Your task to perform on an android device: Search for seafood restaurants on Google Maps Image 0: 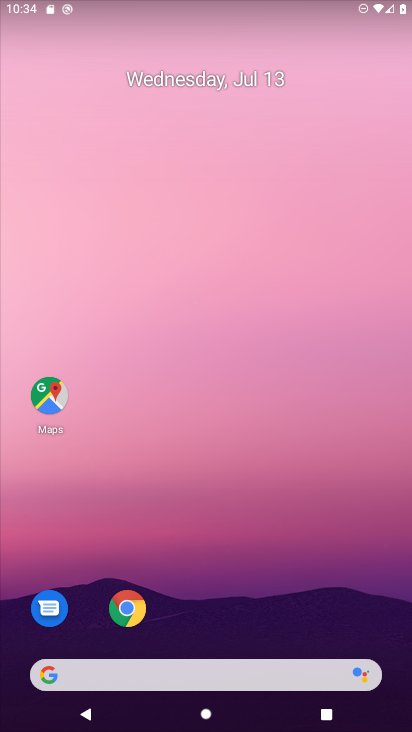
Step 0: click (49, 395)
Your task to perform on an android device: Search for seafood restaurants on Google Maps Image 1: 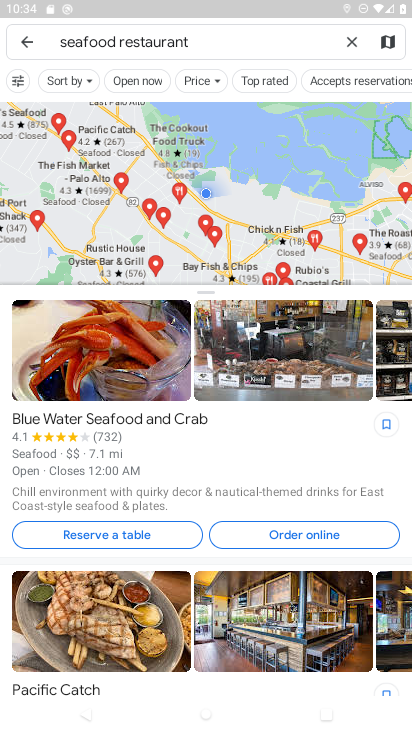
Step 1: task complete